Your task to perform on an android device: turn on improve location accuracy Image 0: 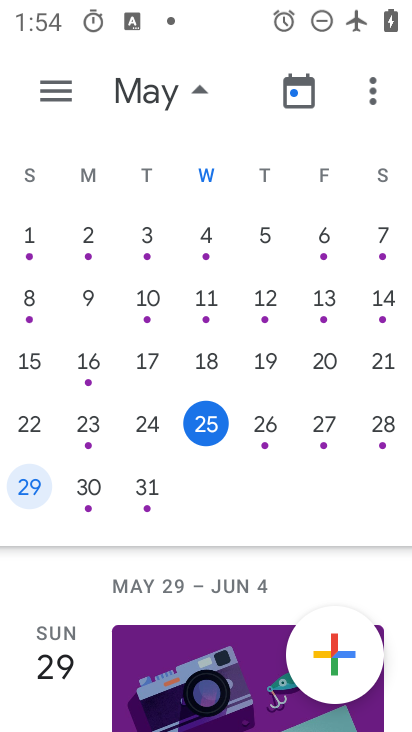
Step 0: press home button
Your task to perform on an android device: turn on improve location accuracy Image 1: 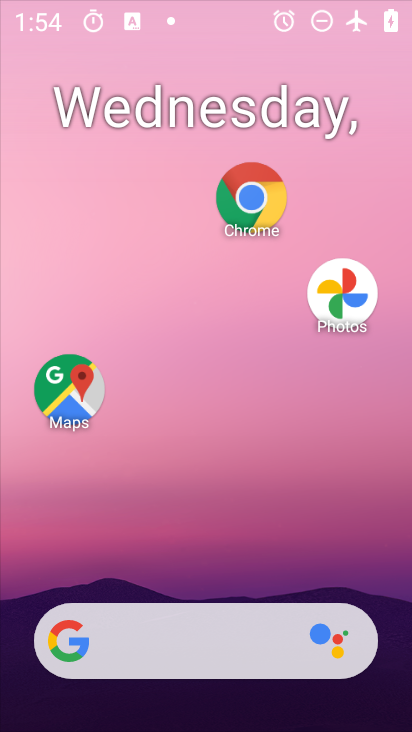
Step 1: drag from (229, 683) to (268, 302)
Your task to perform on an android device: turn on improve location accuracy Image 2: 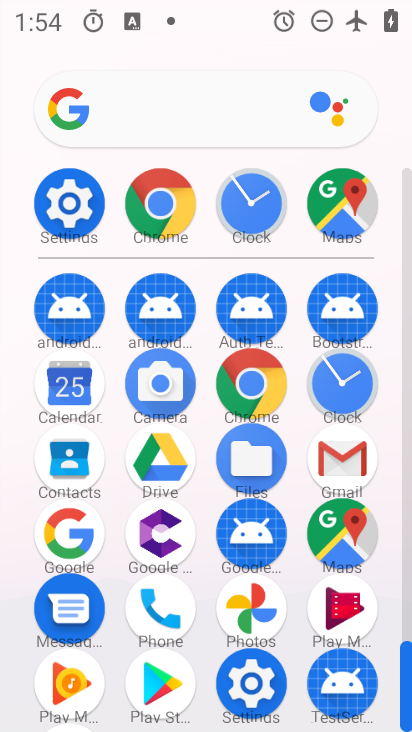
Step 2: drag from (249, 574) to (290, 255)
Your task to perform on an android device: turn on improve location accuracy Image 3: 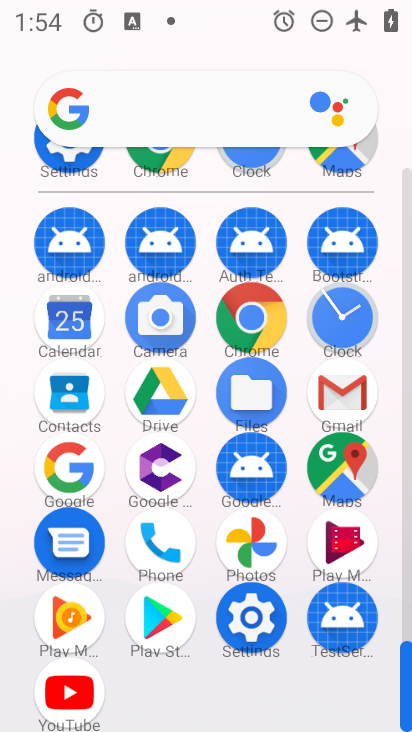
Step 3: click (263, 623)
Your task to perform on an android device: turn on improve location accuracy Image 4: 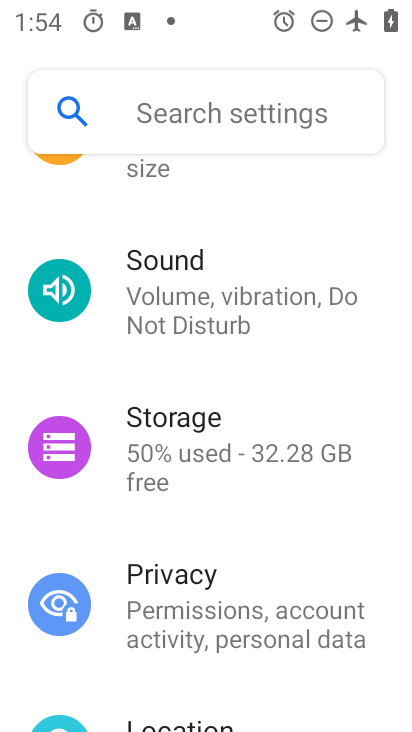
Step 4: drag from (256, 592) to (201, 709)
Your task to perform on an android device: turn on improve location accuracy Image 5: 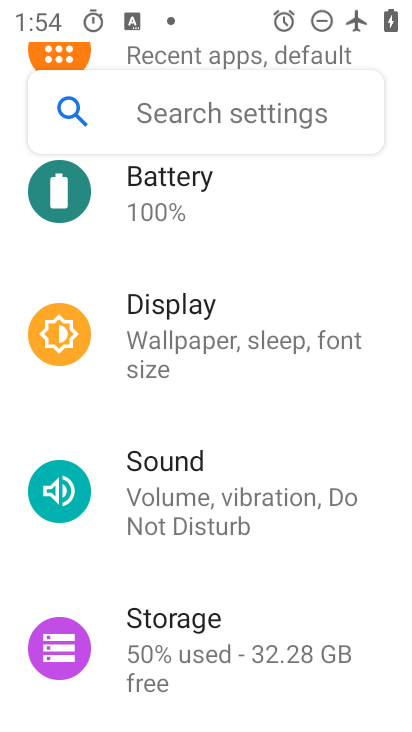
Step 5: drag from (203, 596) to (266, 234)
Your task to perform on an android device: turn on improve location accuracy Image 6: 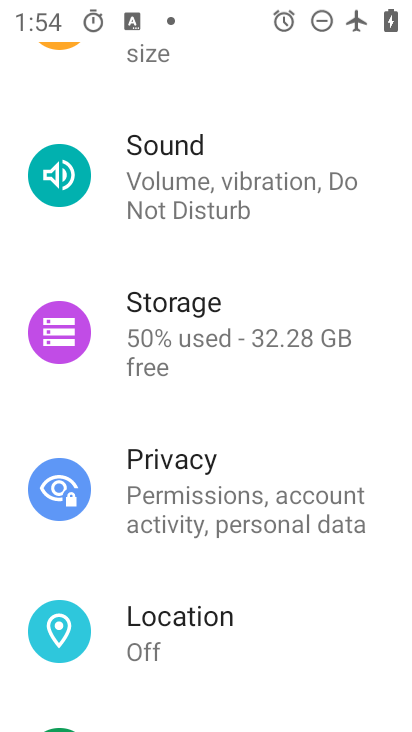
Step 6: click (211, 630)
Your task to perform on an android device: turn on improve location accuracy Image 7: 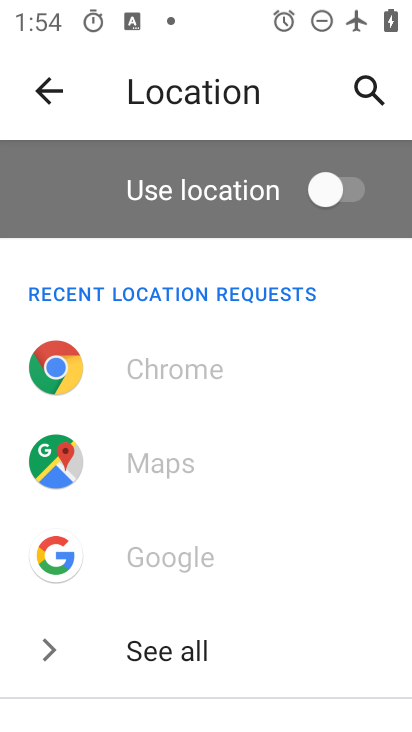
Step 7: click (49, 101)
Your task to perform on an android device: turn on improve location accuracy Image 8: 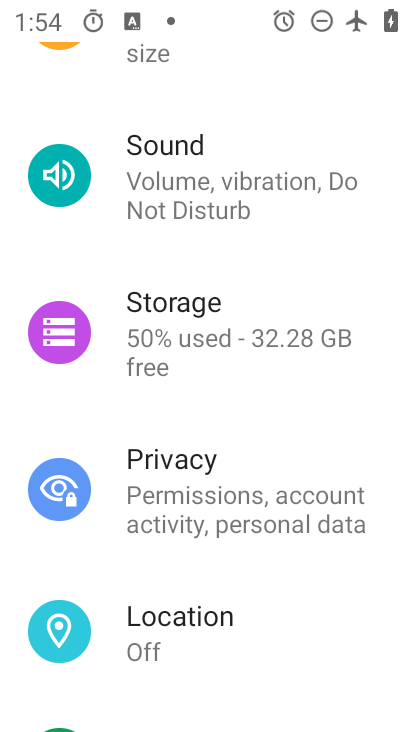
Step 8: click (246, 644)
Your task to perform on an android device: turn on improve location accuracy Image 9: 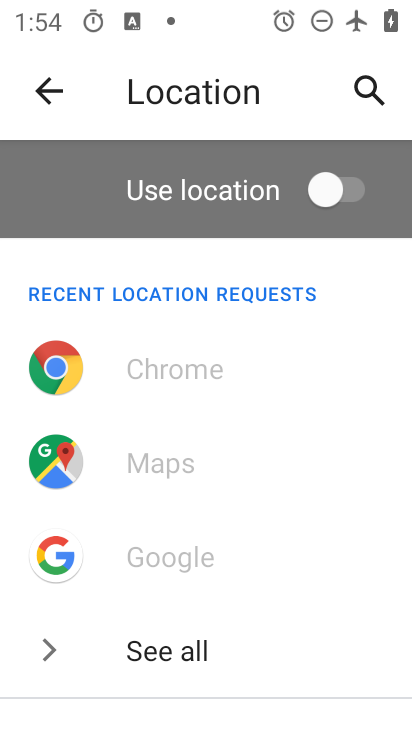
Step 9: drag from (207, 635) to (276, 285)
Your task to perform on an android device: turn on improve location accuracy Image 10: 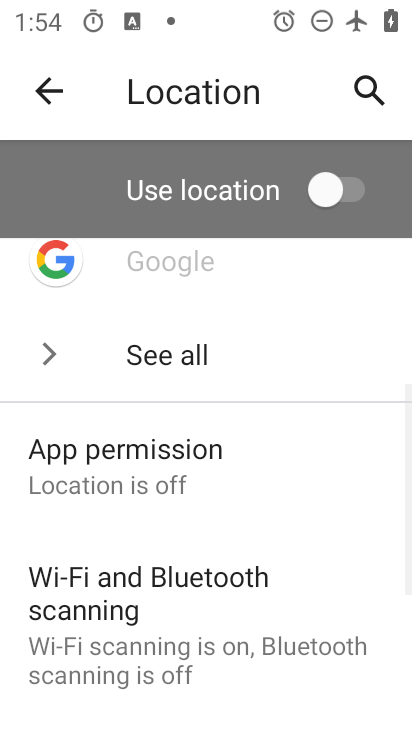
Step 10: drag from (182, 650) to (259, 278)
Your task to perform on an android device: turn on improve location accuracy Image 11: 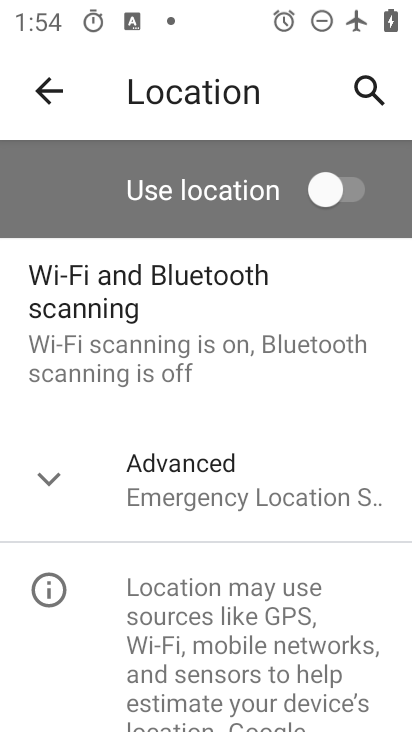
Step 11: drag from (231, 629) to (239, 326)
Your task to perform on an android device: turn on improve location accuracy Image 12: 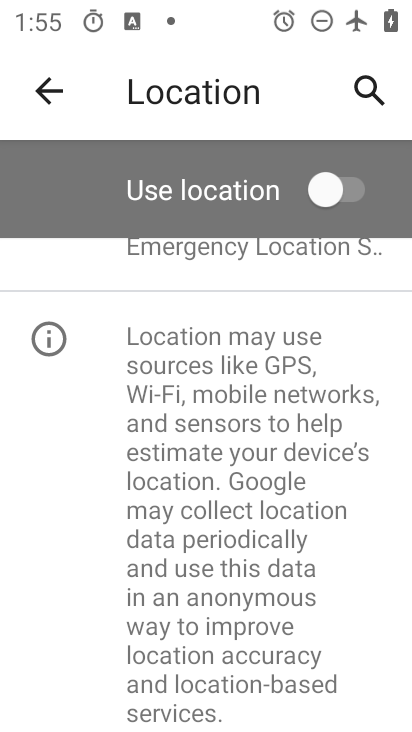
Step 12: click (123, 284)
Your task to perform on an android device: turn on improve location accuracy Image 13: 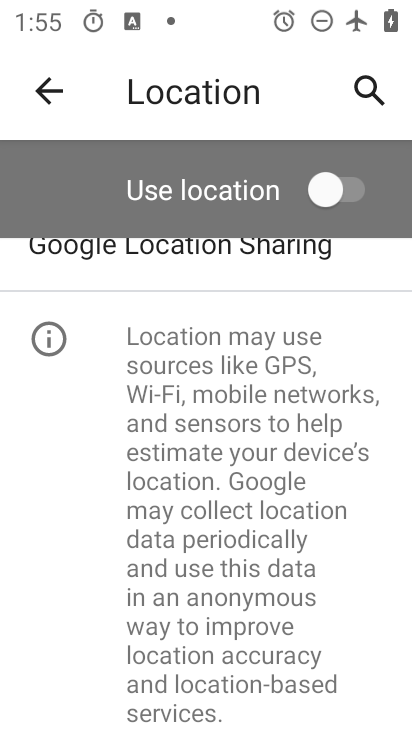
Step 13: drag from (182, 433) to (208, 721)
Your task to perform on an android device: turn on improve location accuracy Image 14: 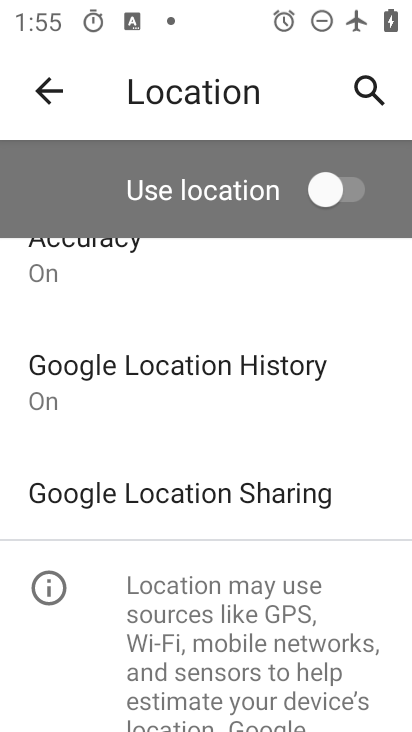
Step 14: drag from (269, 441) to (246, 625)
Your task to perform on an android device: turn on improve location accuracy Image 15: 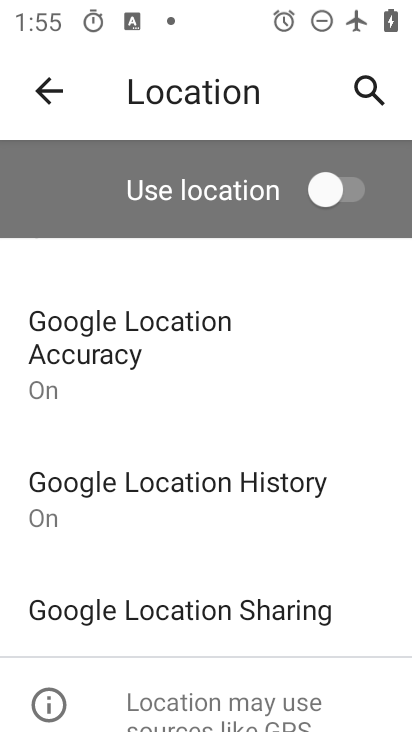
Step 15: click (172, 367)
Your task to perform on an android device: turn on improve location accuracy Image 16: 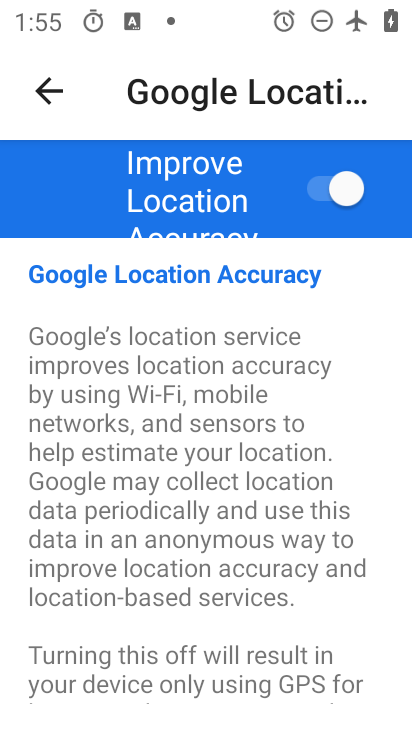
Step 16: task complete